Your task to perform on an android device: remove spam from my inbox in the gmail app Image 0: 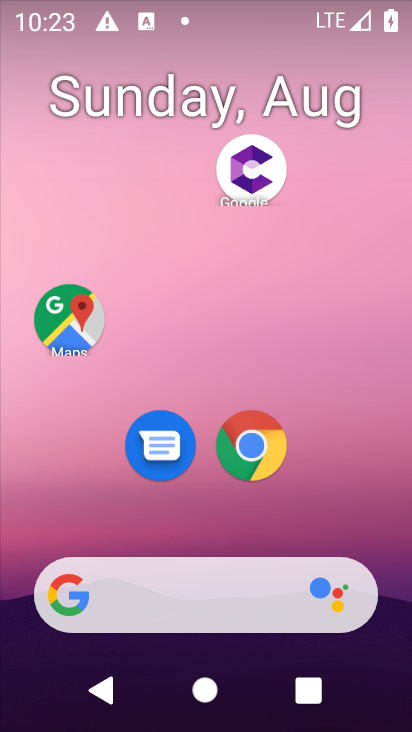
Step 0: drag from (211, 530) to (217, 68)
Your task to perform on an android device: remove spam from my inbox in the gmail app Image 1: 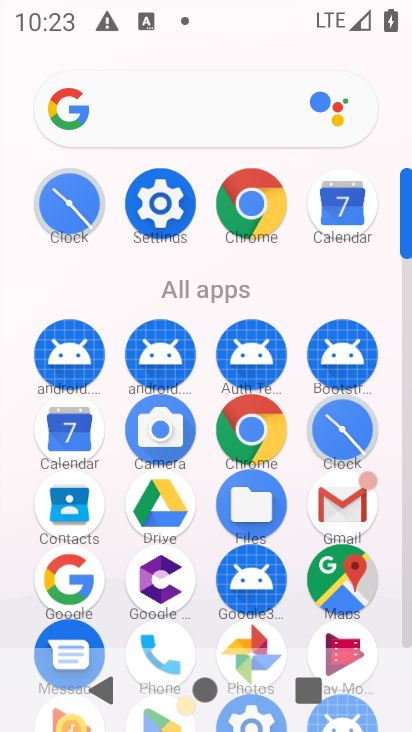
Step 1: click (340, 492)
Your task to perform on an android device: remove spam from my inbox in the gmail app Image 2: 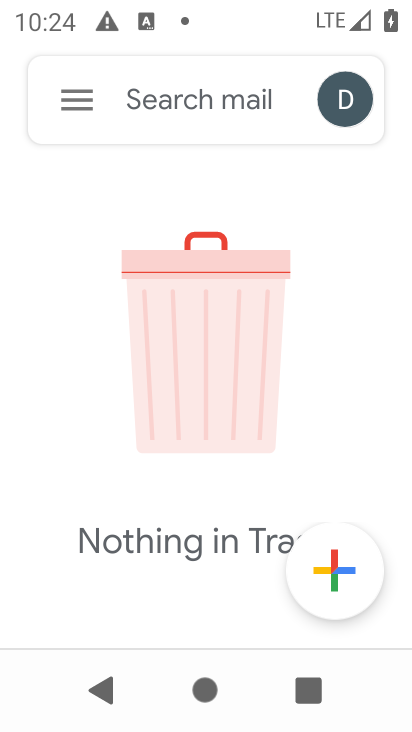
Step 2: task complete